Your task to perform on an android device: Open the Play Movies app and select the watchlist tab. Image 0: 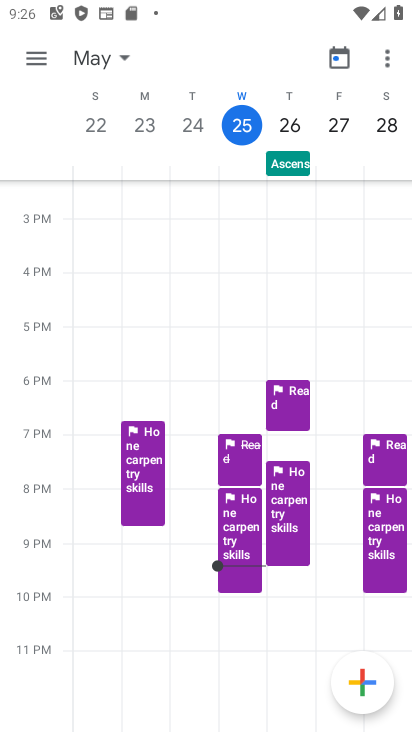
Step 0: press back button
Your task to perform on an android device: Open the Play Movies app and select the watchlist tab. Image 1: 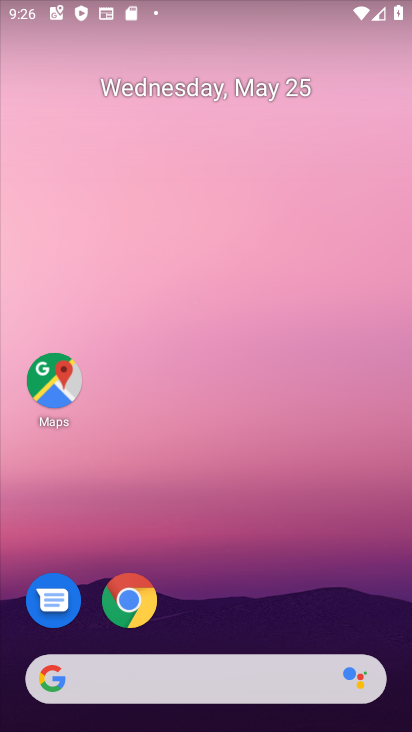
Step 1: drag from (282, 535) to (246, 7)
Your task to perform on an android device: Open the Play Movies app and select the watchlist tab. Image 2: 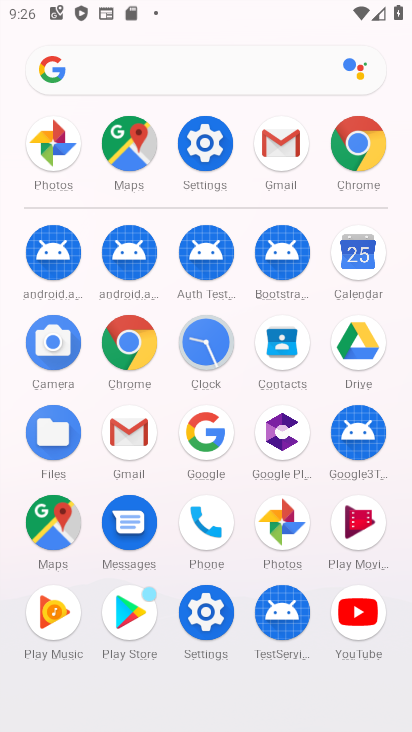
Step 2: drag from (0, 561) to (25, 229)
Your task to perform on an android device: Open the Play Movies app and select the watchlist tab. Image 3: 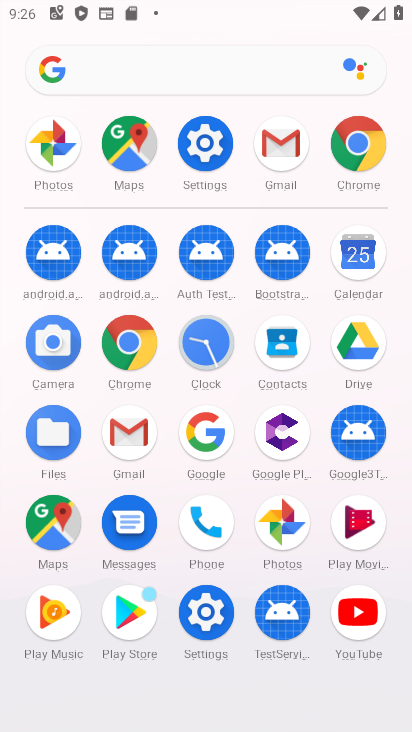
Step 3: click (349, 519)
Your task to perform on an android device: Open the Play Movies app and select the watchlist tab. Image 4: 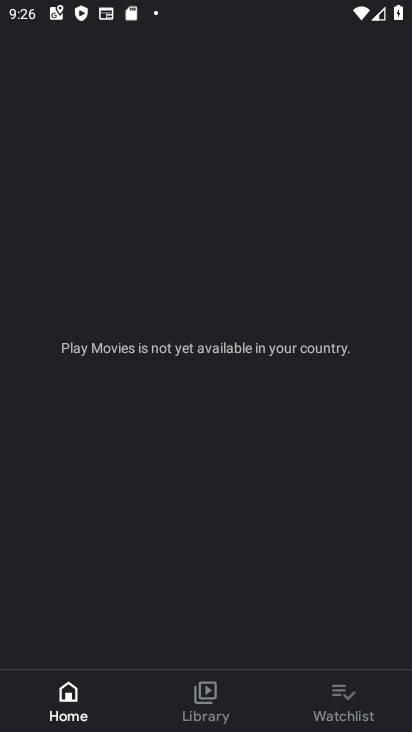
Step 4: click (343, 703)
Your task to perform on an android device: Open the Play Movies app and select the watchlist tab. Image 5: 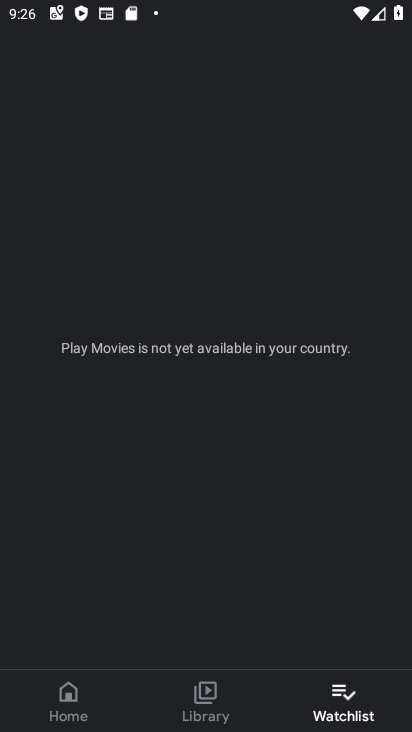
Step 5: task complete